Your task to perform on an android device: Open privacy settings Image 0: 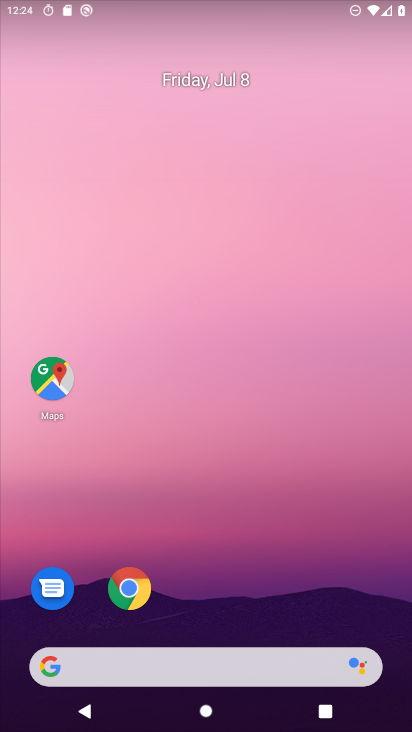
Step 0: drag from (270, 530) to (260, 64)
Your task to perform on an android device: Open privacy settings Image 1: 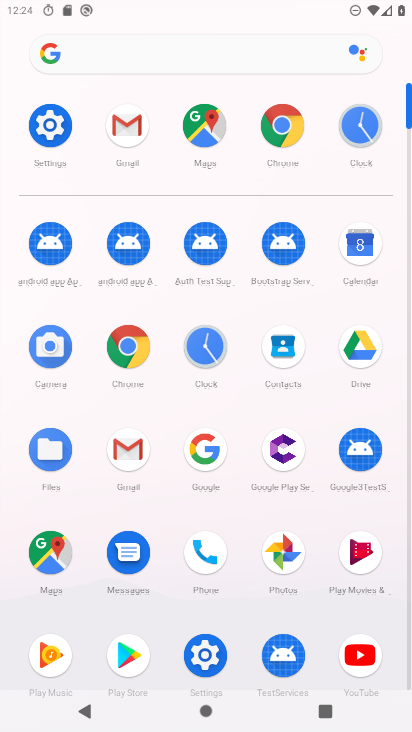
Step 1: click (48, 120)
Your task to perform on an android device: Open privacy settings Image 2: 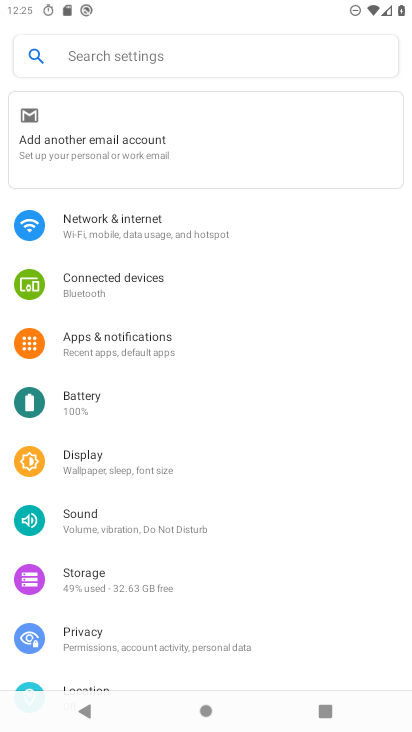
Step 2: drag from (216, 591) to (272, 124)
Your task to perform on an android device: Open privacy settings Image 3: 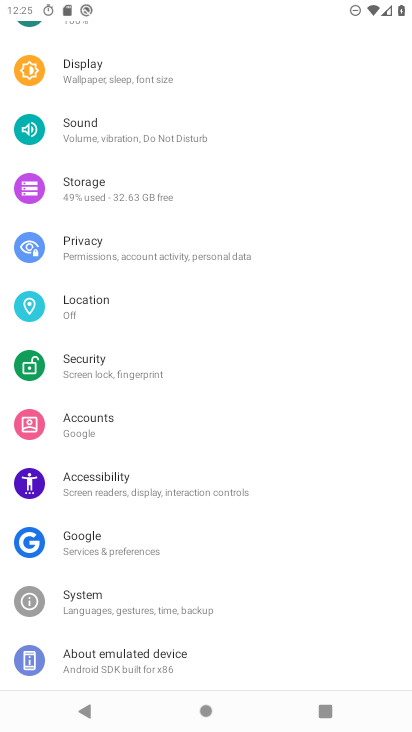
Step 3: click (118, 248)
Your task to perform on an android device: Open privacy settings Image 4: 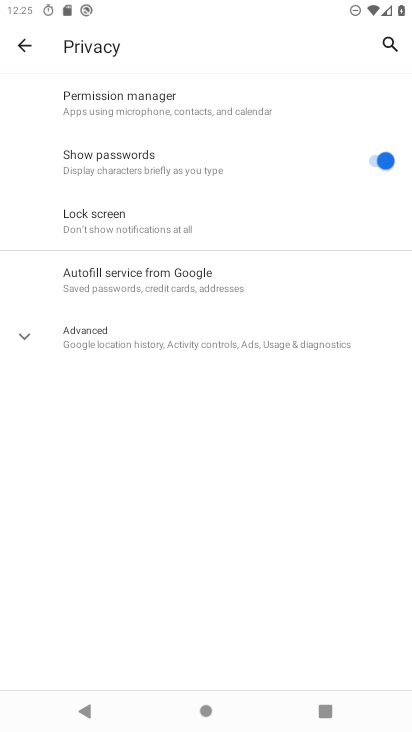
Step 4: task complete